Your task to perform on an android device: Open Google Chrome and open the bookmarks view Image 0: 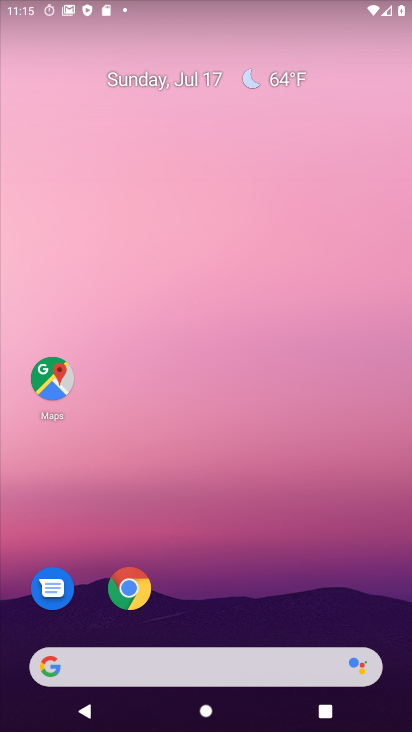
Step 0: drag from (200, 636) to (282, 187)
Your task to perform on an android device: Open Google Chrome and open the bookmarks view Image 1: 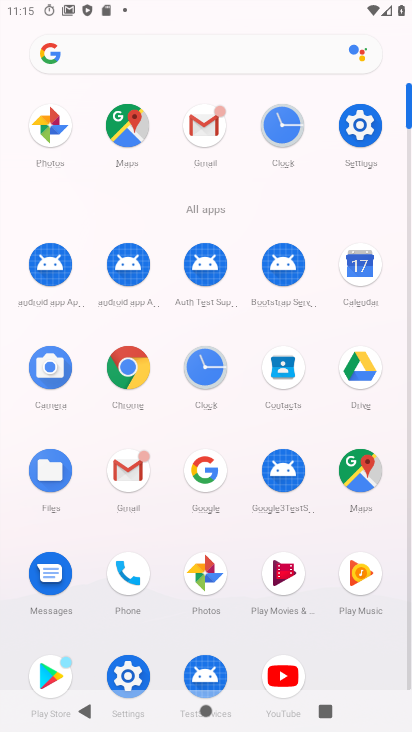
Step 1: click (141, 355)
Your task to perform on an android device: Open Google Chrome and open the bookmarks view Image 2: 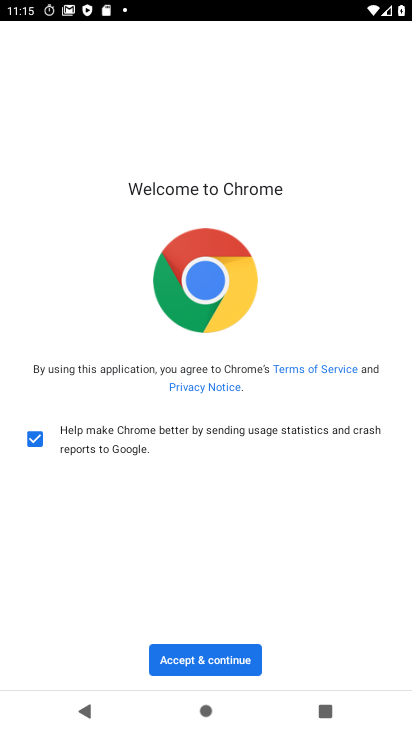
Step 2: click (209, 658)
Your task to perform on an android device: Open Google Chrome and open the bookmarks view Image 3: 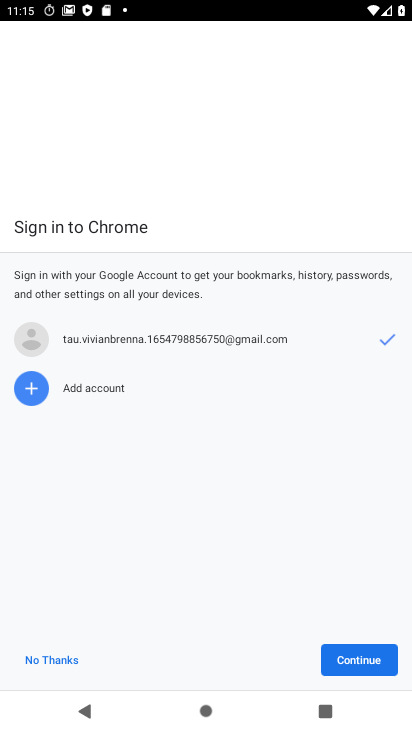
Step 3: click (351, 656)
Your task to perform on an android device: Open Google Chrome and open the bookmarks view Image 4: 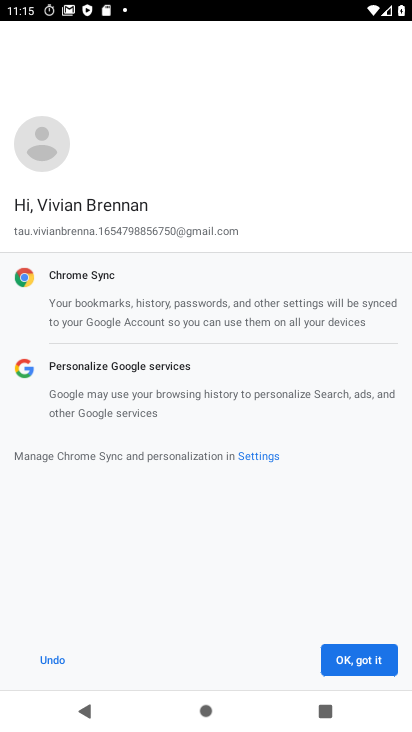
Step 4: click (364, 664)
Your task to perform on an android device: Open Google Chrome and open the bookmarks view Image 5: 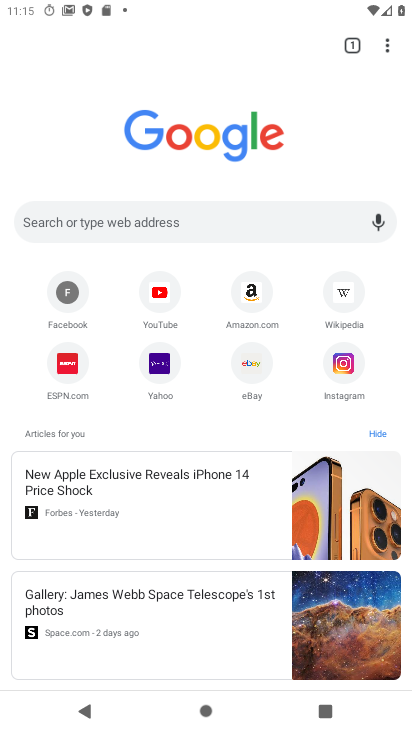
Step 5: task complete